Your task to perform on an android device: turn smart compose on in the gmail app Image 0: 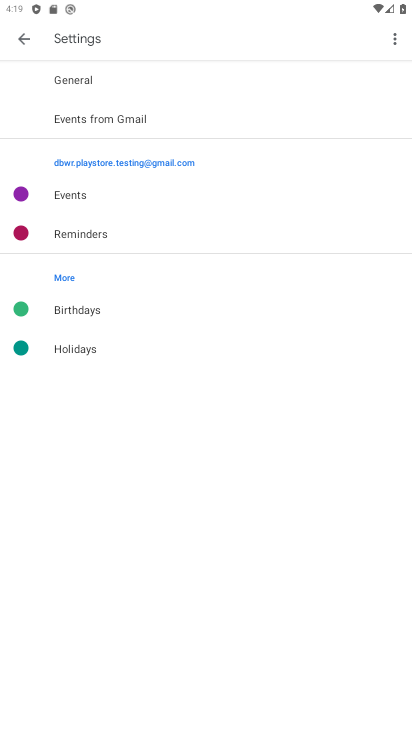
Step 0: press home button
Your task to perform on an android device: turn smart compose on in the gmail app Image 1: 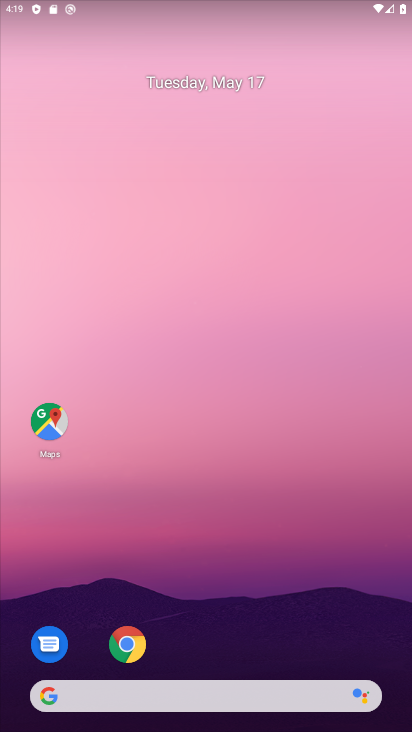
Step 1: drag from (195, 596) to (146, 137)
Your task to perform on an android device: turn smart compose on in the gmail app Image 2: 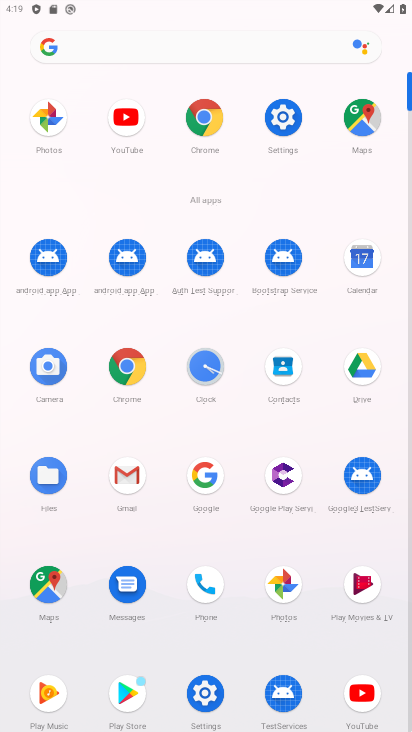
Step 2: click (122, 472)
Your task to perform on an android device: turn smart compose on in the gmail app Image 3: 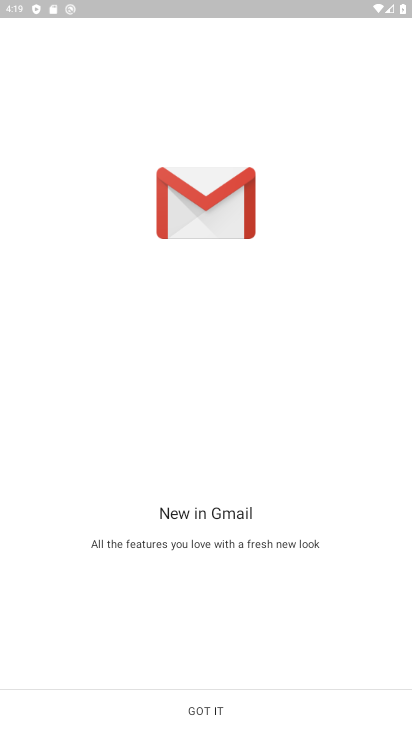
Step 3: click (201, 716)
Your task to perform on an android device: turn smart compose on in the gmail app Image 4: 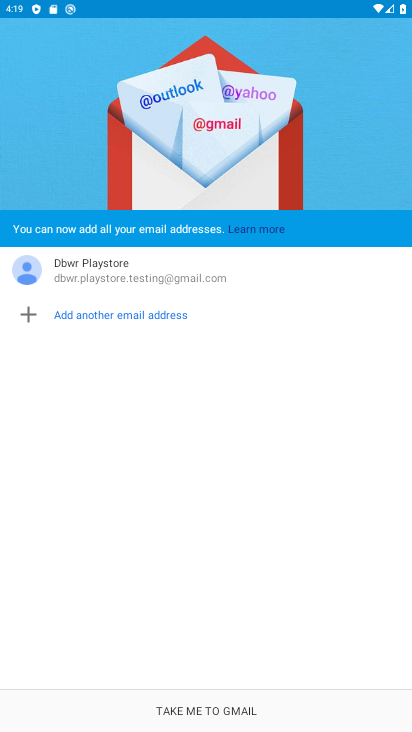
Step 4: click (217, 719)
Your task to perform on an android device: turn smart compose on in the gmail app Image 5: 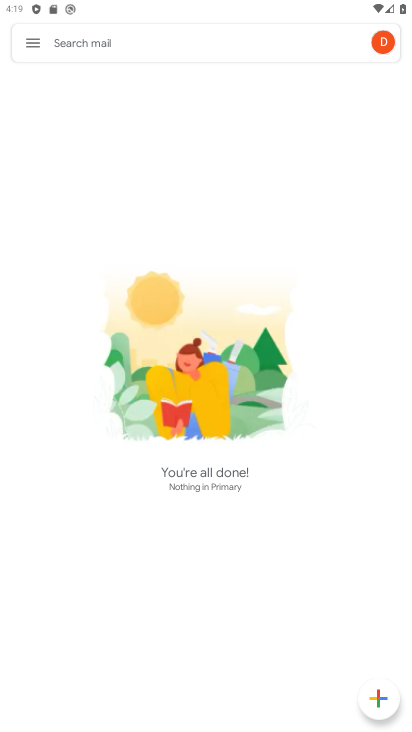
Step 5: click (28, 41)
Your task to perform on an android device: turn smart compose on in the gmail app Image 6: 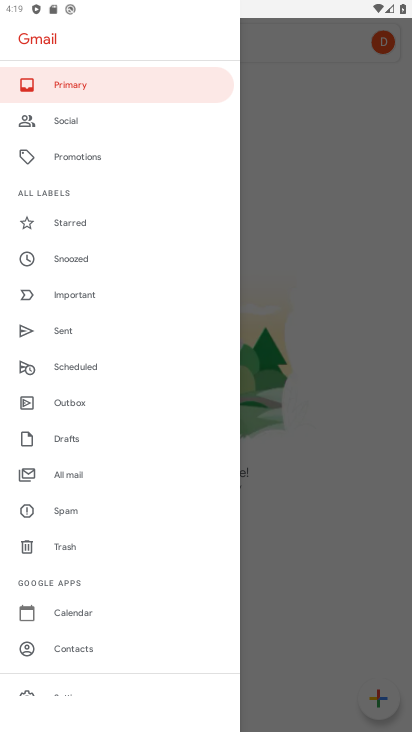
Step 6: drag from (105, 562) to (131, 161)
Your task to perform on an android device: turn smart compose on in the gmail app Image 7: 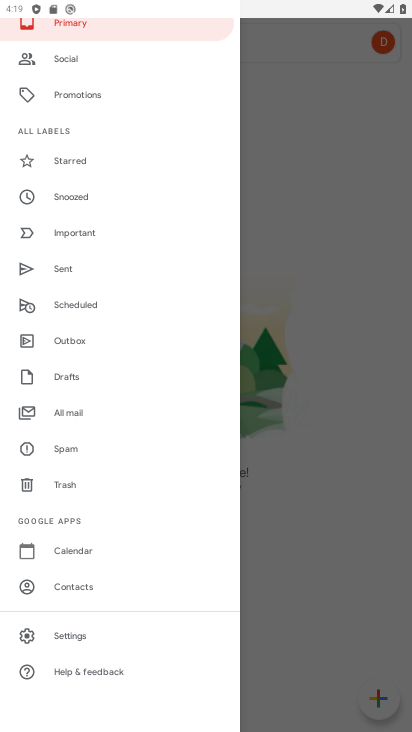
Step 7: click (79, 632)
Your task to perform on an android device: turn smart compose on in the gmail app Image 8: 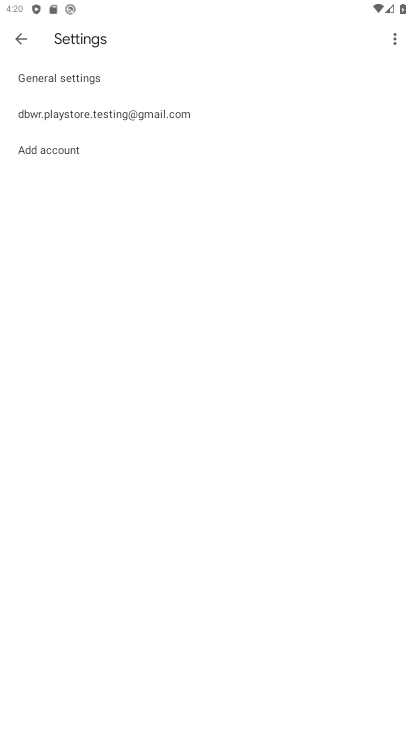
Step 8: click (95, 114)
Your task to perform on an android device: turn smart compose on in the gmail app Image 9: 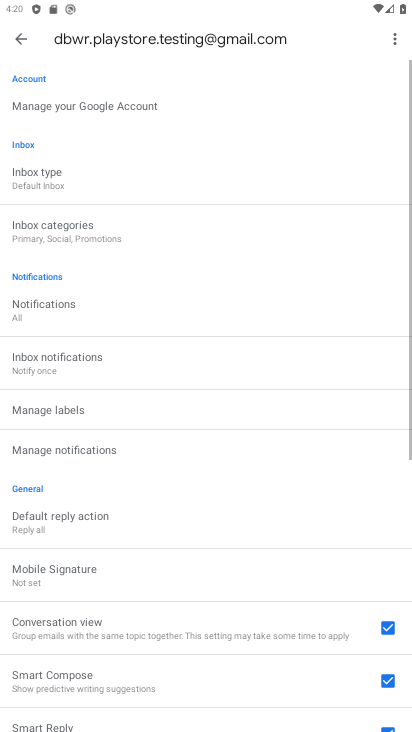
Step 9: task complete